Your task to perform on an android device: manage bookmarks in the chrome app Image 0: 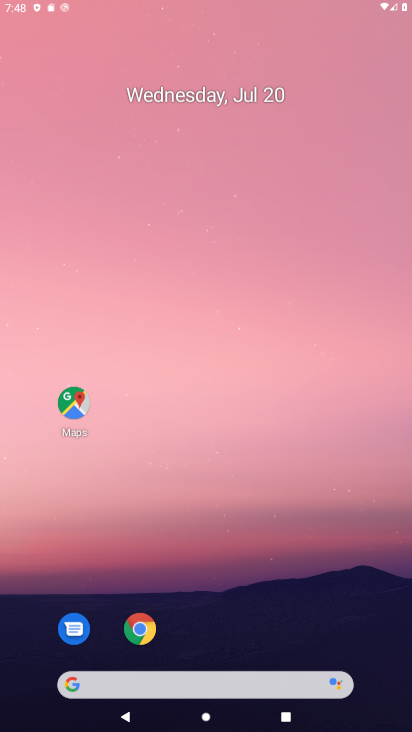
Step 0: press back button
Your task to perform on an android device: manage bookmarks in the chrome app Image 1: 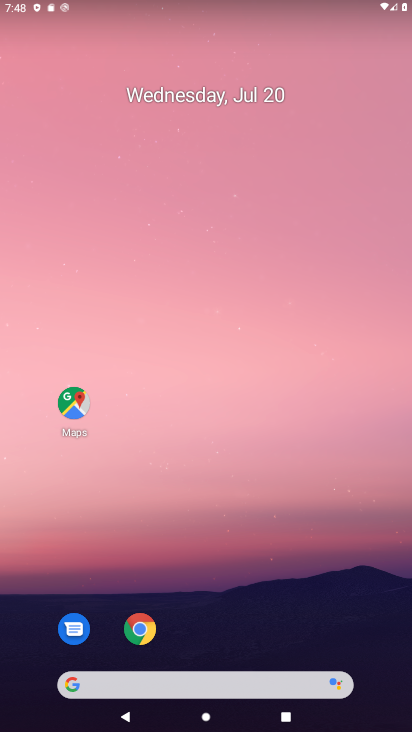
Step 1: drag from (202, 292) to (199, 246)
Your task to perform on an android device: manage bookmarks in the chrome app Image 2: 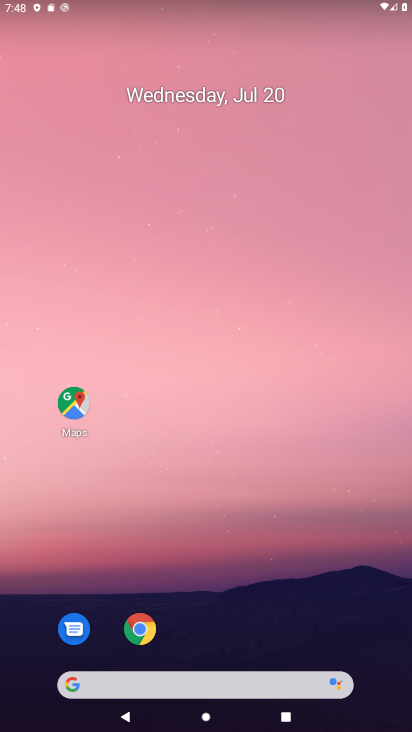
Step 2: drag from (211, 563) to (186, 331)
Your task to perform on an android device: manage bookmarks in the chrome app Image 3: 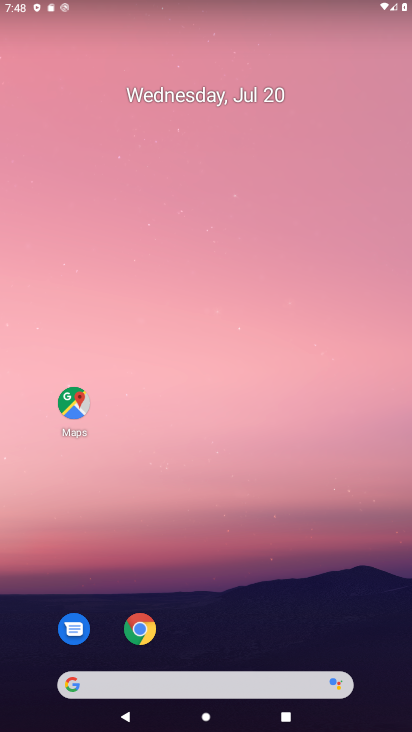
Step 3: drag from (169, 607) to (115, 201)
Your task to perform on an android device: manage bookmarks in the chrome app Image 4: 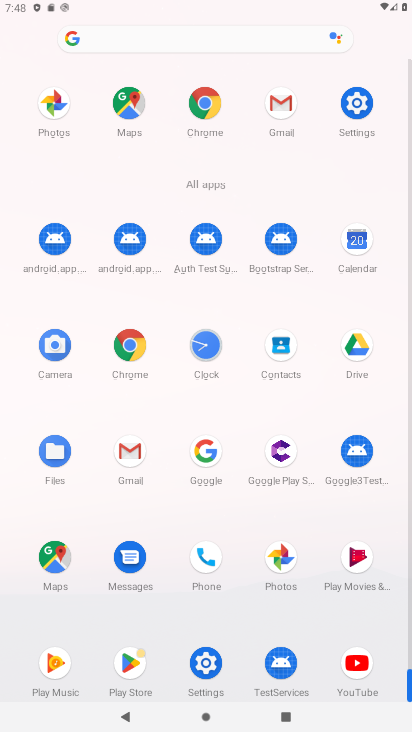
Step 4: click (203, 102)
Your task to perform on an android device: manage bookmarks in the chrome app Image 5: 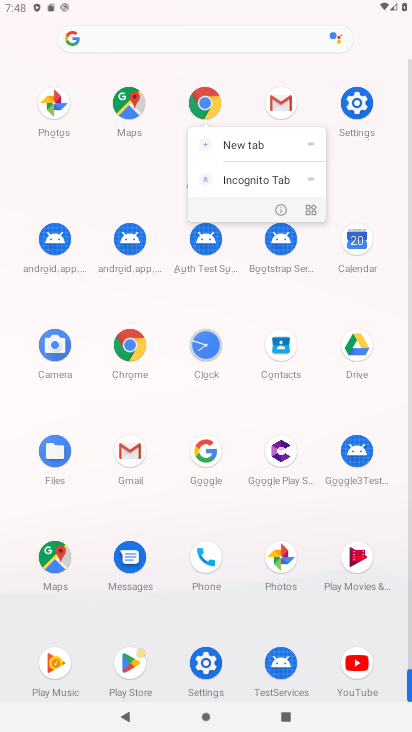
Step 5: click (204, 104)
Your task to perform on an android device: manage bookmarks in the chrome app Image 6: 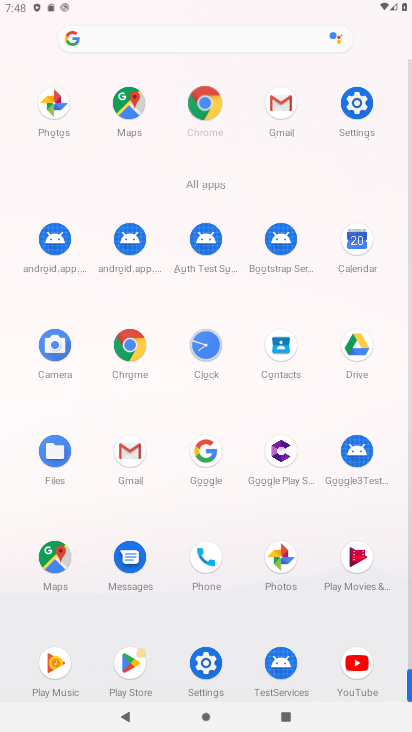
Step 6: click (204, 105)
Your task to perform on an android device: manage bookmarks in the chrome app Image 7: 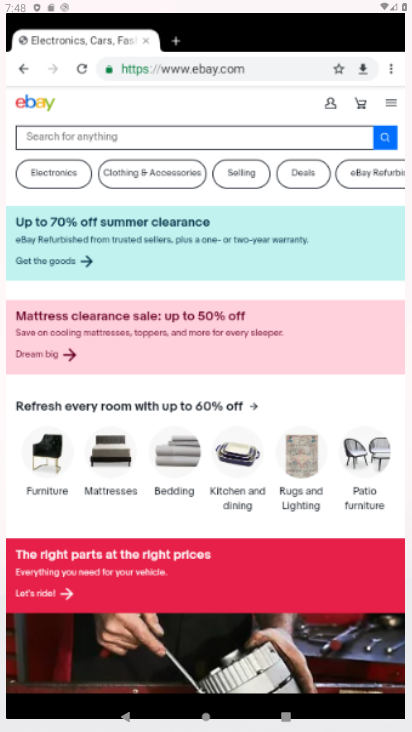
Step 7: click (205, 106)
Your task to perform on an android device: manage bookmarks in the chrome app Image 8: 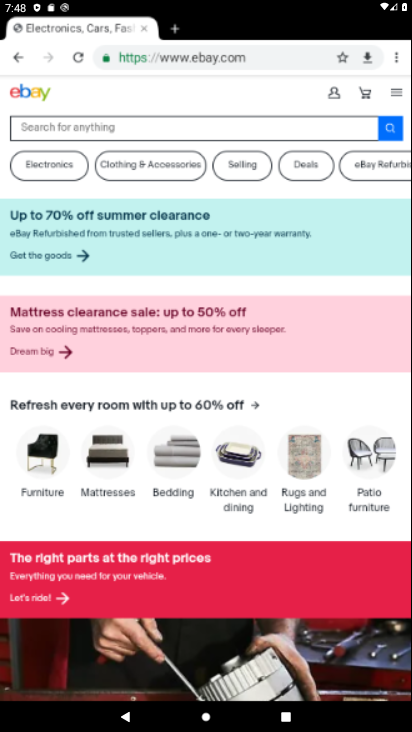
Step 8: click (206, 106)
Your task to perform on an android device: manage bookmarks in the chrome app Image 9: 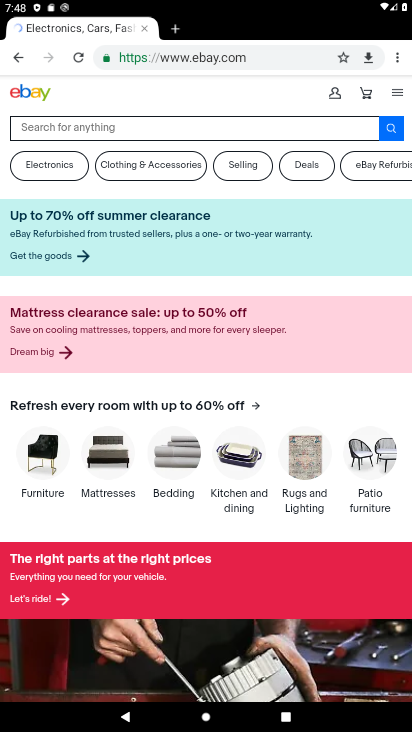
Step 9: drag from (400, 55) to (279, 53)
Your task to perform on an android device: manage bookmarks in the chrome app Image 10: 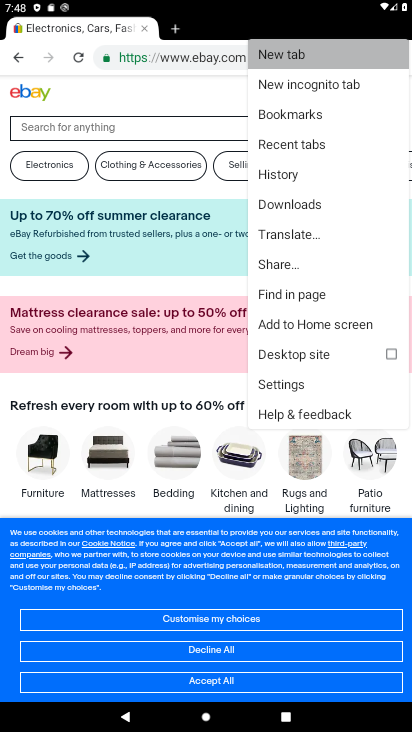
Step 10: click (279, 53)
Your task to perform on an android device: manage bookmarks in the chrome app Image 11: 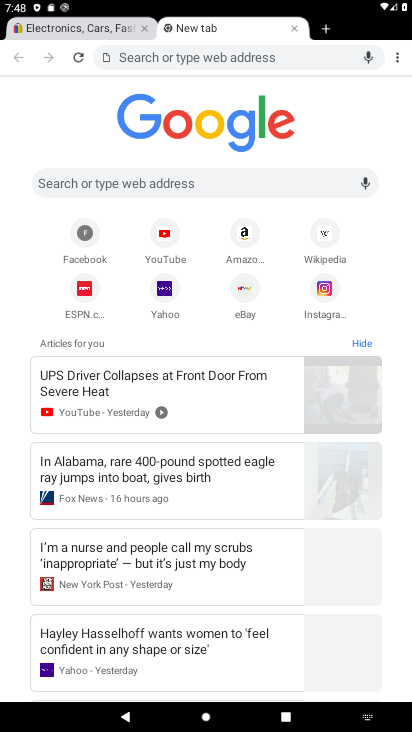
Step 11: click (397, 59)
Your task to perform on an android device: manage bookmarks in the chrome app Image 12: 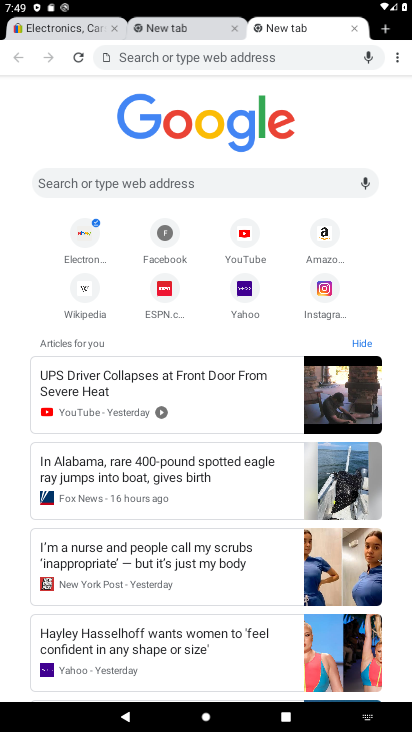
Step 12: click (346, 25)
Your task to perform on an android device: manage bookmarks in the chrome app Image 13: 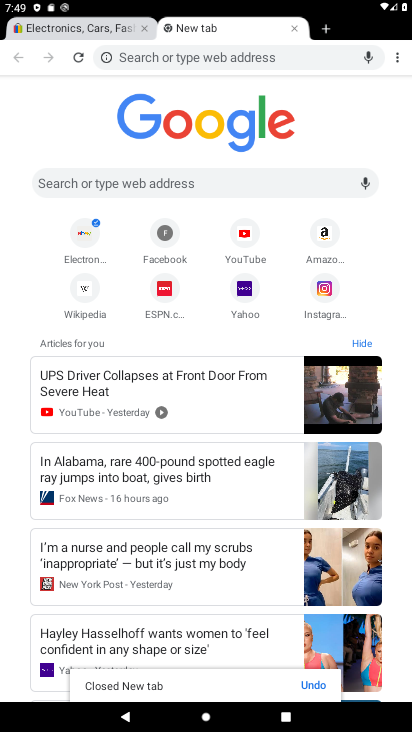
Step 13: click (117, 28)
Your task to perform on an android device: manage bookmarks in the chrome app Image 14: 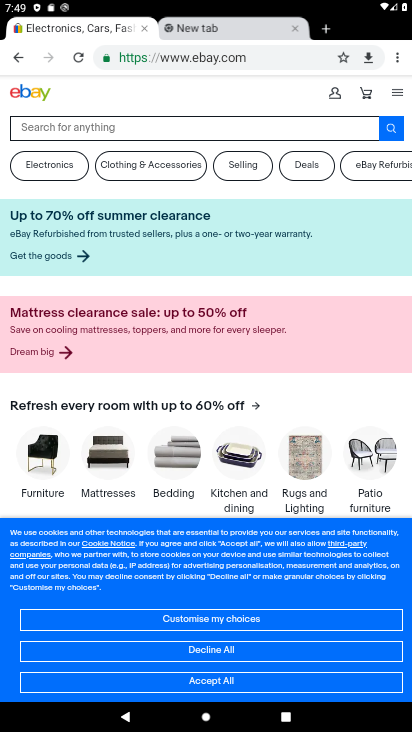
Step 14: click (296, 25)
Your task to perform on an android device: manage bookmarks in the chrome app Image 15: 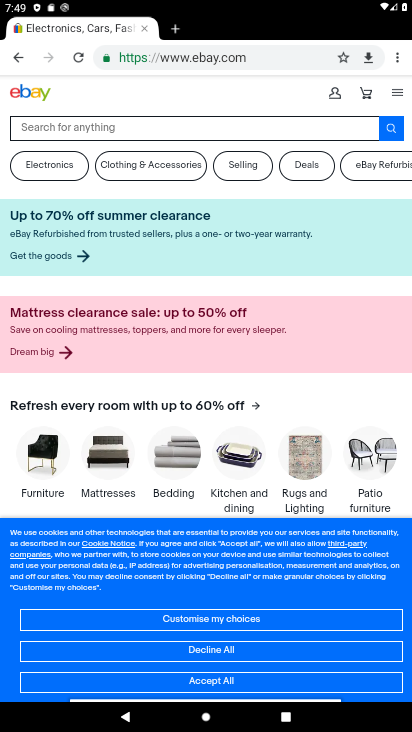
Step 15: click (296, 25)
Your task to perform on an android device: manage bookmarks in the chrome app Image 16: 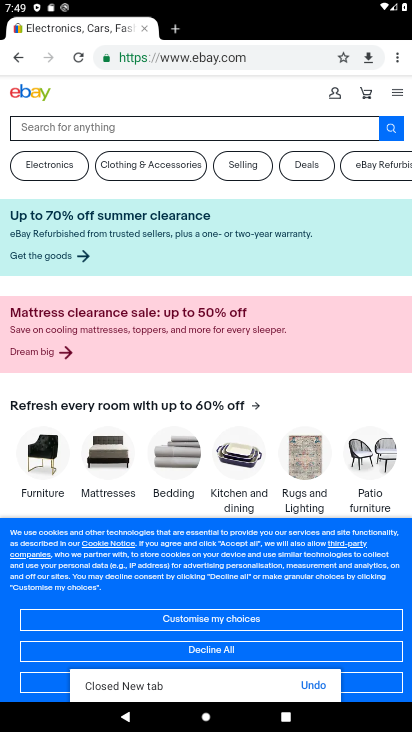
Step 16: drag from (402, 56) to (285, 115)
Your task to perform on an android device: manage bookmarks in the chrome app Image 17: 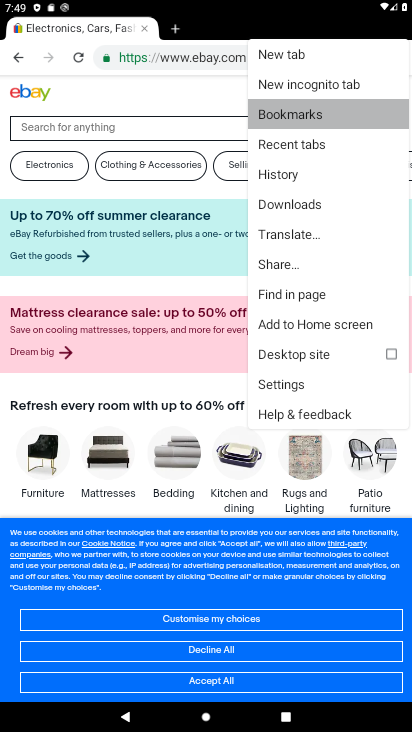
Step 17: click (293, 118)
Your task to perform on an android device: manage bookmarks in the chrome app Image 18: 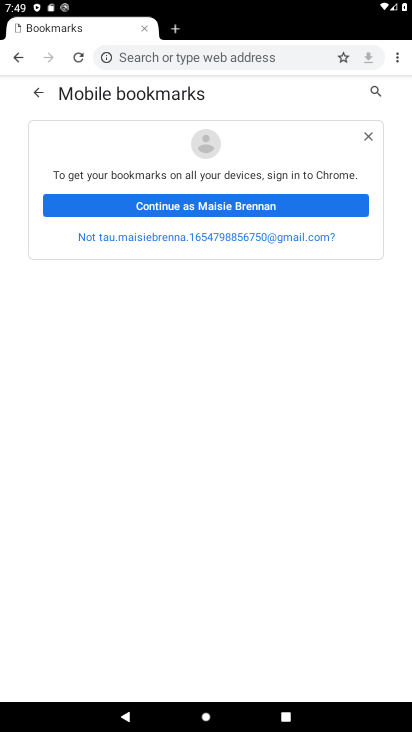
Step 18: task complete